Your task to perform on an android device: create a new album in the google photos Image 0: 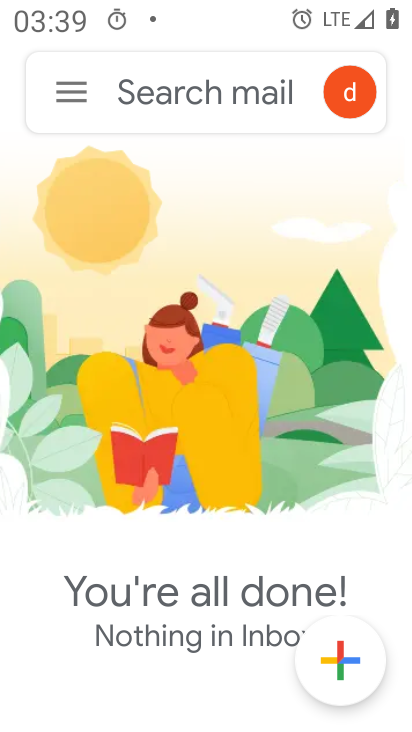
Step 0: press back button
Your task to perform on an android device: create a new album in the google photos Image 1: 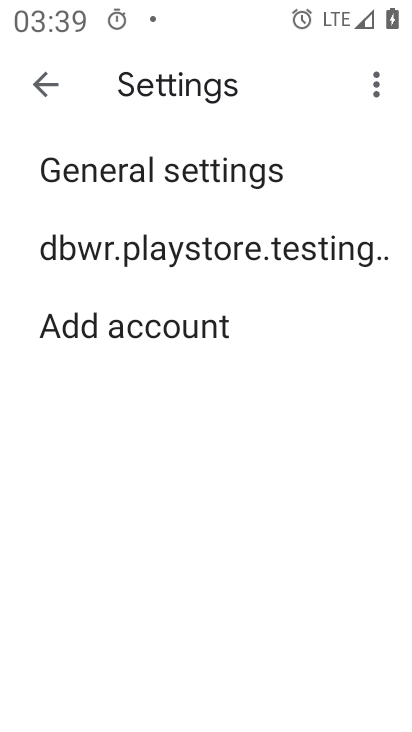
Step 1: press back button
Your task to perform on an android device: create a new album in the google photos Image 2: 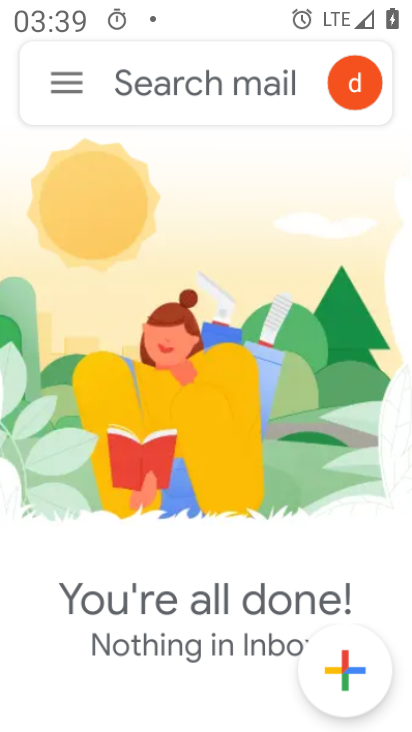
Step 2: press home button
Your task to perform on an android device: create a new album in the google photos Image 3: 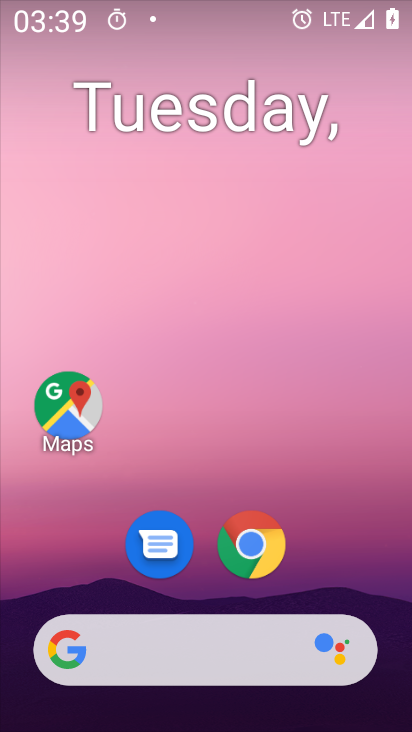
Step 3: drag from (340, 515) to (280, 39)
Your task to perform on an android device: create a new album in the google photos Image 4: 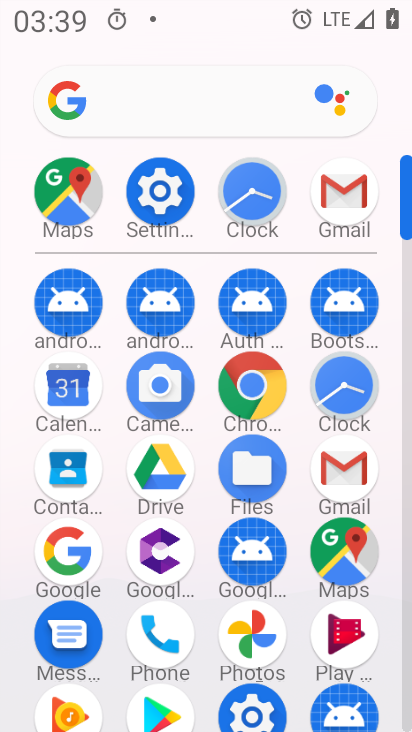
Step 4: click (252, 627)
Your task to perform on an android device: create a new album in the google photos Image 5: 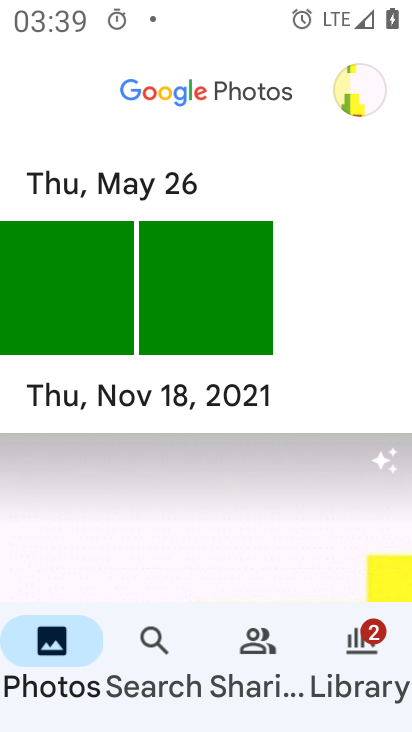
Step 5: click (238, 319)
Your task to perform on an android device: create a new album in the google photos Image 6: 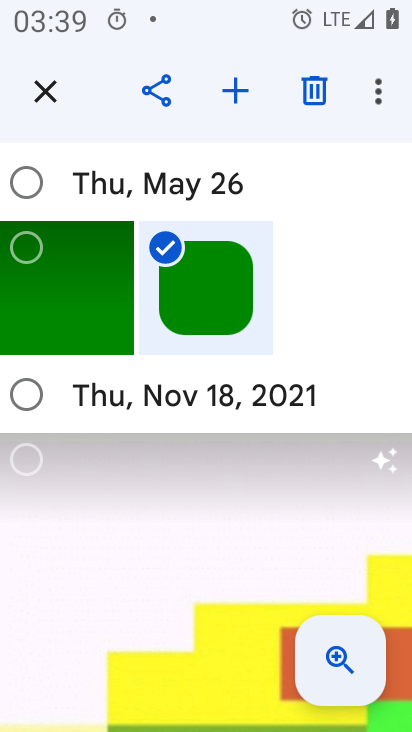
Step 6: click (239, 81)
Your task to perform on an android device: create a new album in the google photos Image 7: 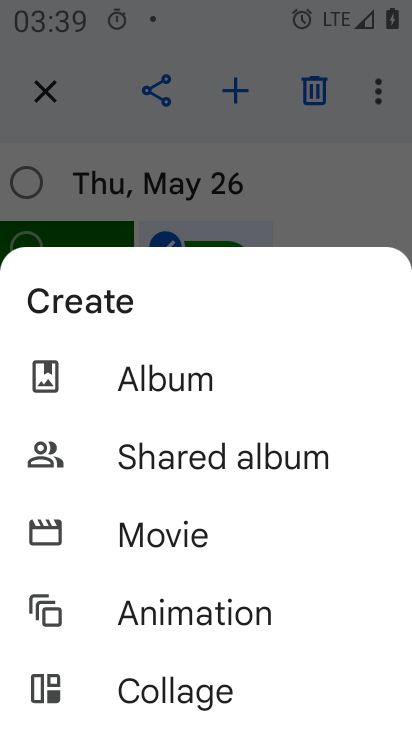
Step 7: click (191, 371)
Your task to perform on an android device: create a new album in the google photos Image 8: 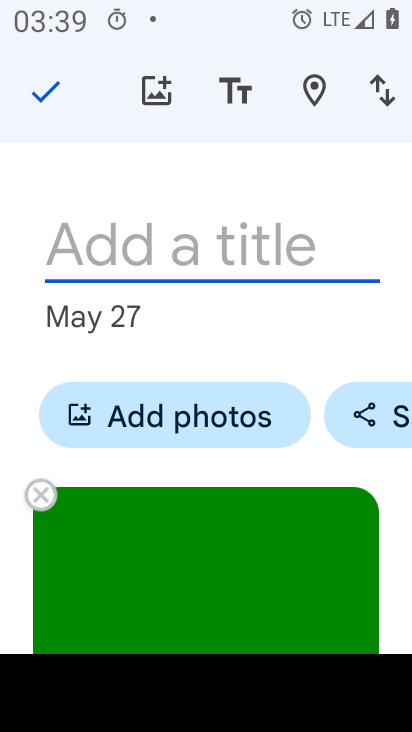
Step 8: type "cfvgb"
Your task to perform on an android device: create a new album in the google photos Image 9: 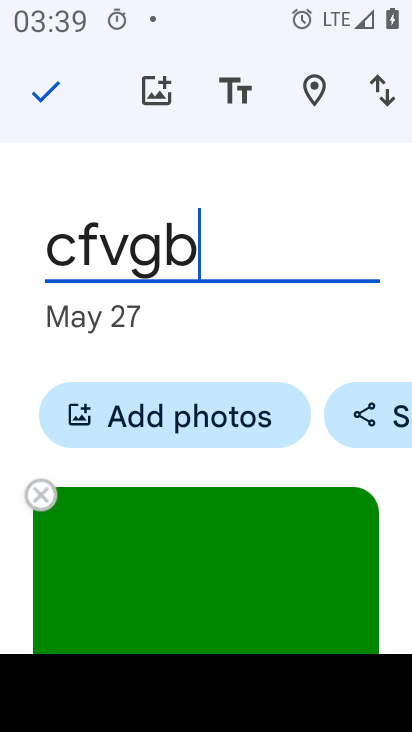
Step 9: type ""
Your task to perform on an android device: create a new album in the google photos Image 10: 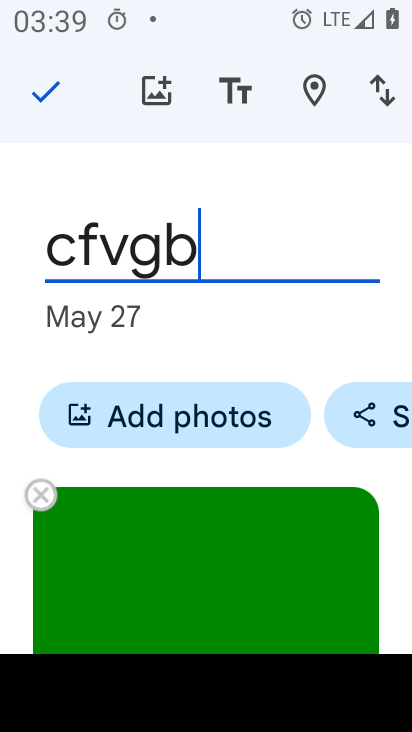
Step 10: click (51, 86)
Your task to perform on an android device: create a new album in the google photos Image 11: 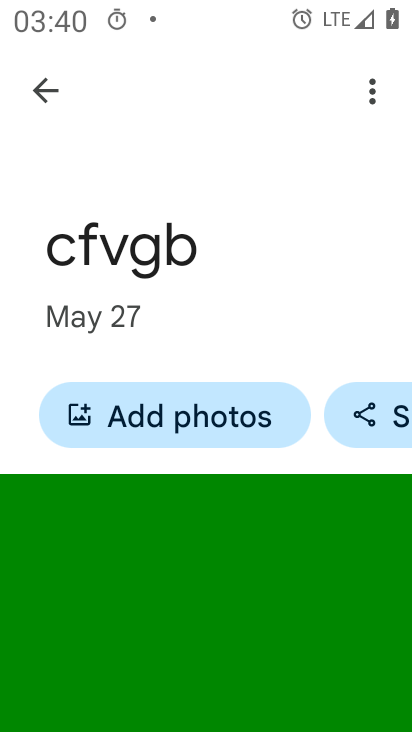
Step 11: task complete